Your task to perform on an android device: Empty the shopping cart on walmart.com. Search for "jbl charge 4" on walmart.com, select the first entry, and add it to the cart. Image 0: 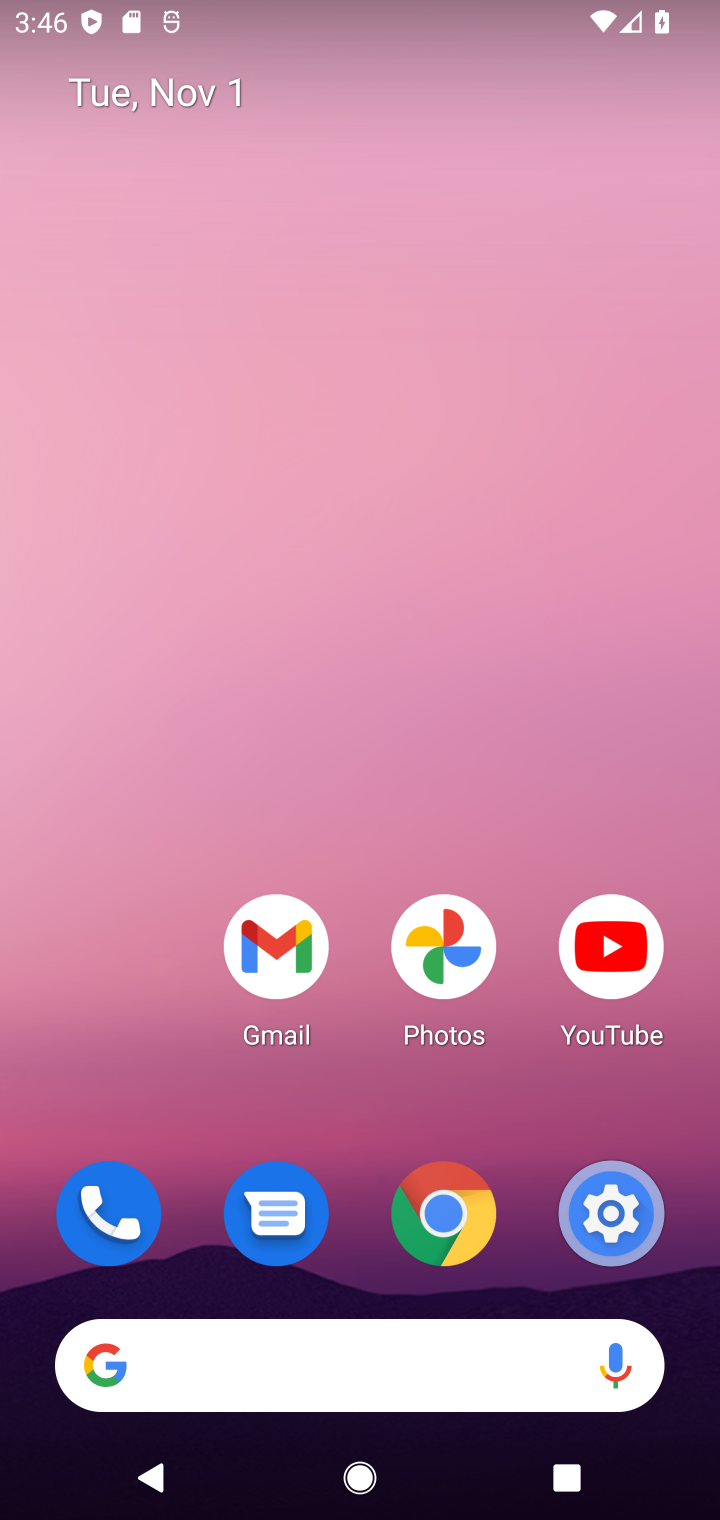
Step 0: click (406, 1351)
Your task to perform on an android device: Empty the shopping cart on walmart.com. Search for "jbl charge 4" on walmart.com, select the first entry, and add it to the cart. Image 1: 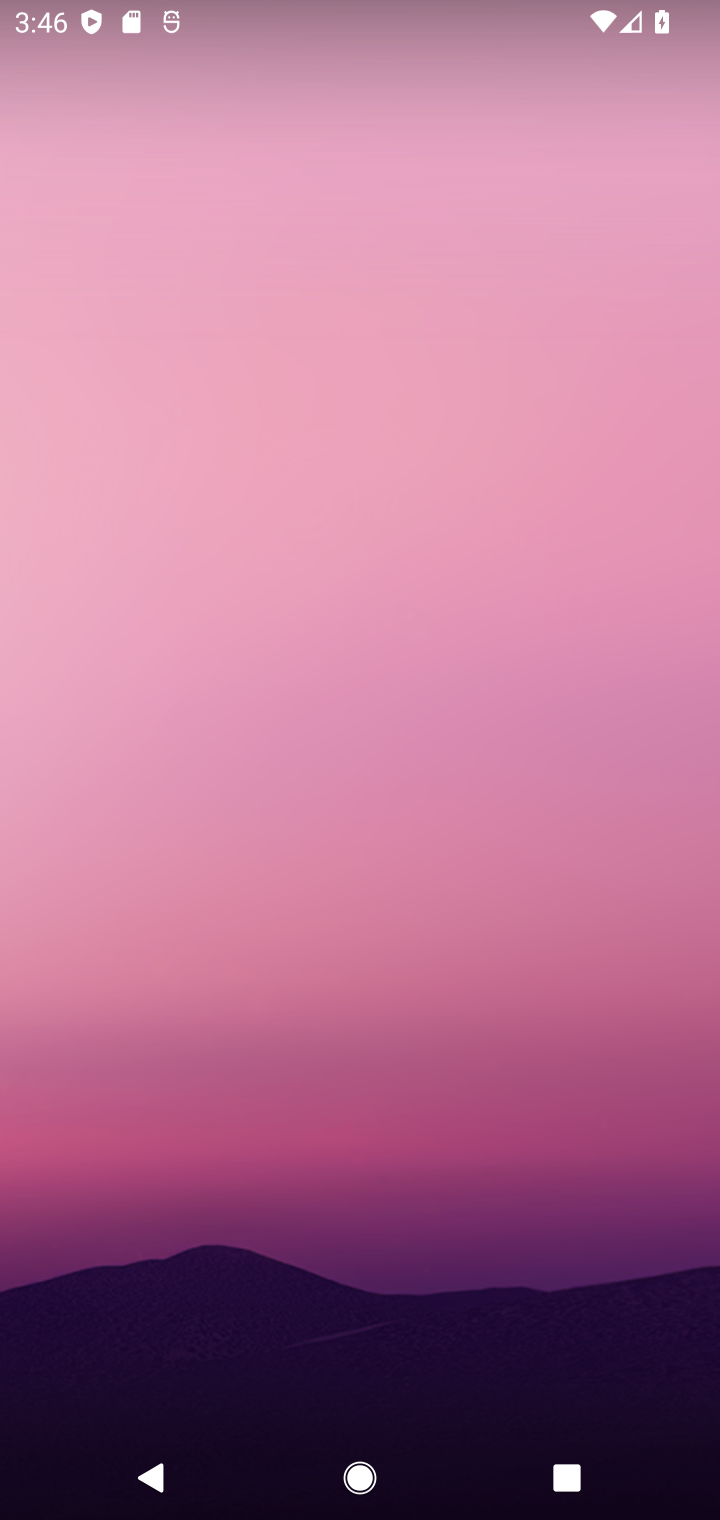
Step 1: click (406, 1354)
Your task to perform on an android device: Empty the shopping cart on walmart.com. Search for "jbl charge 4" on walmart.com, select the first entry, and add it to the cart. Image 2: 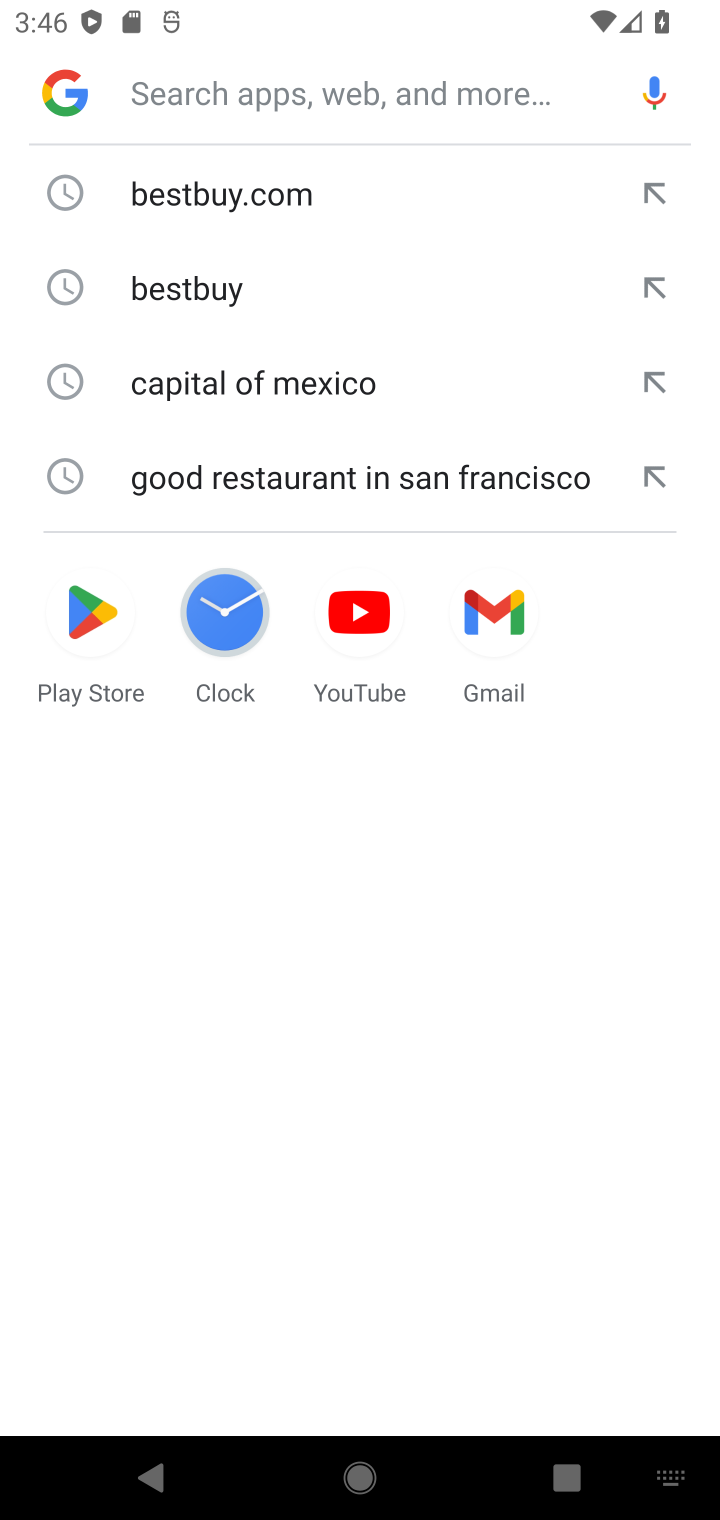
Step 2: type "walmart.com"
Your task to perform on an android device: Empty the shopping cart on walmart.com. Search for "jbl charge 4" on walmart.com, select the first entry, and add it to the cart. Image 3: 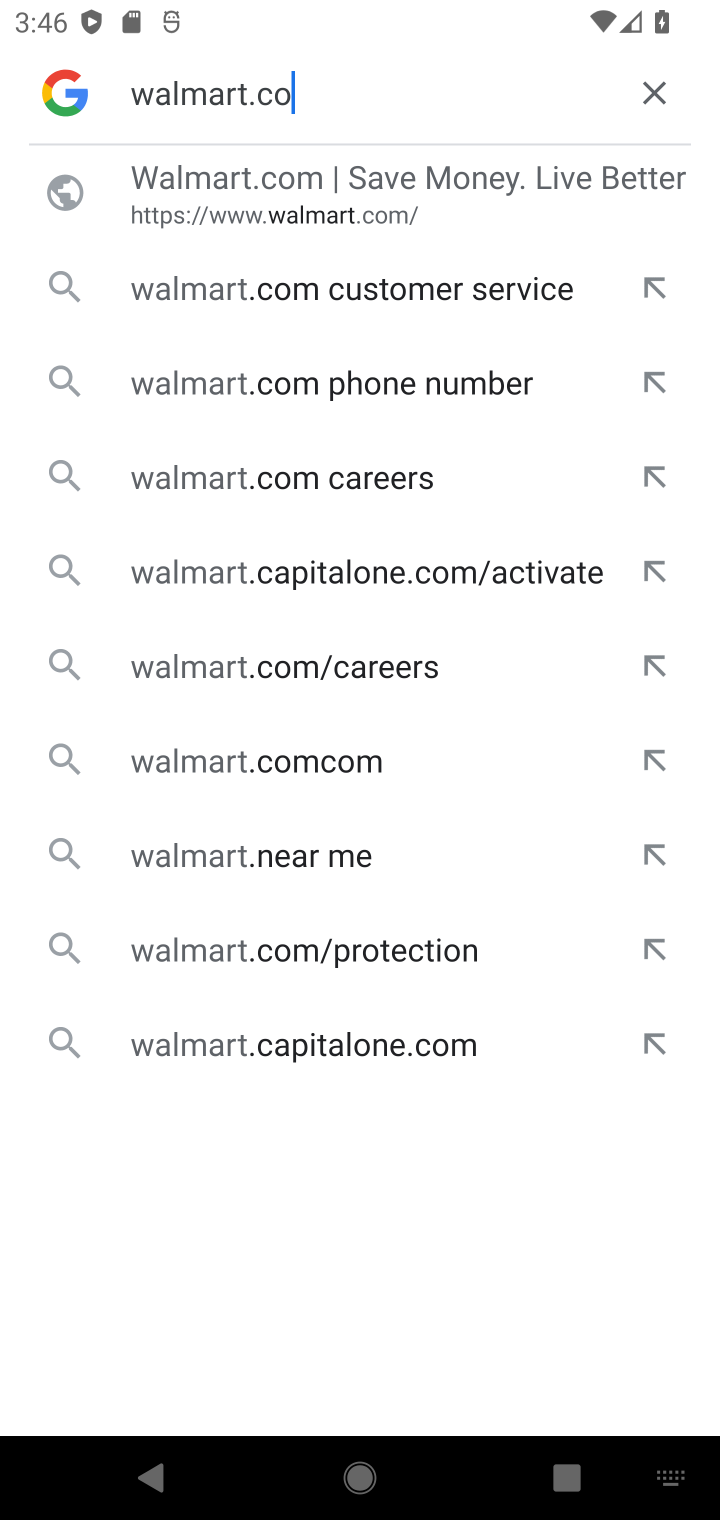
Step 3: type ""
Your task to perform on an android device: Empty the shopping cart on walmart.com. Search for "jbl charge 4" on walmart.com, select the first entry, and add it to the cart. Image 4: 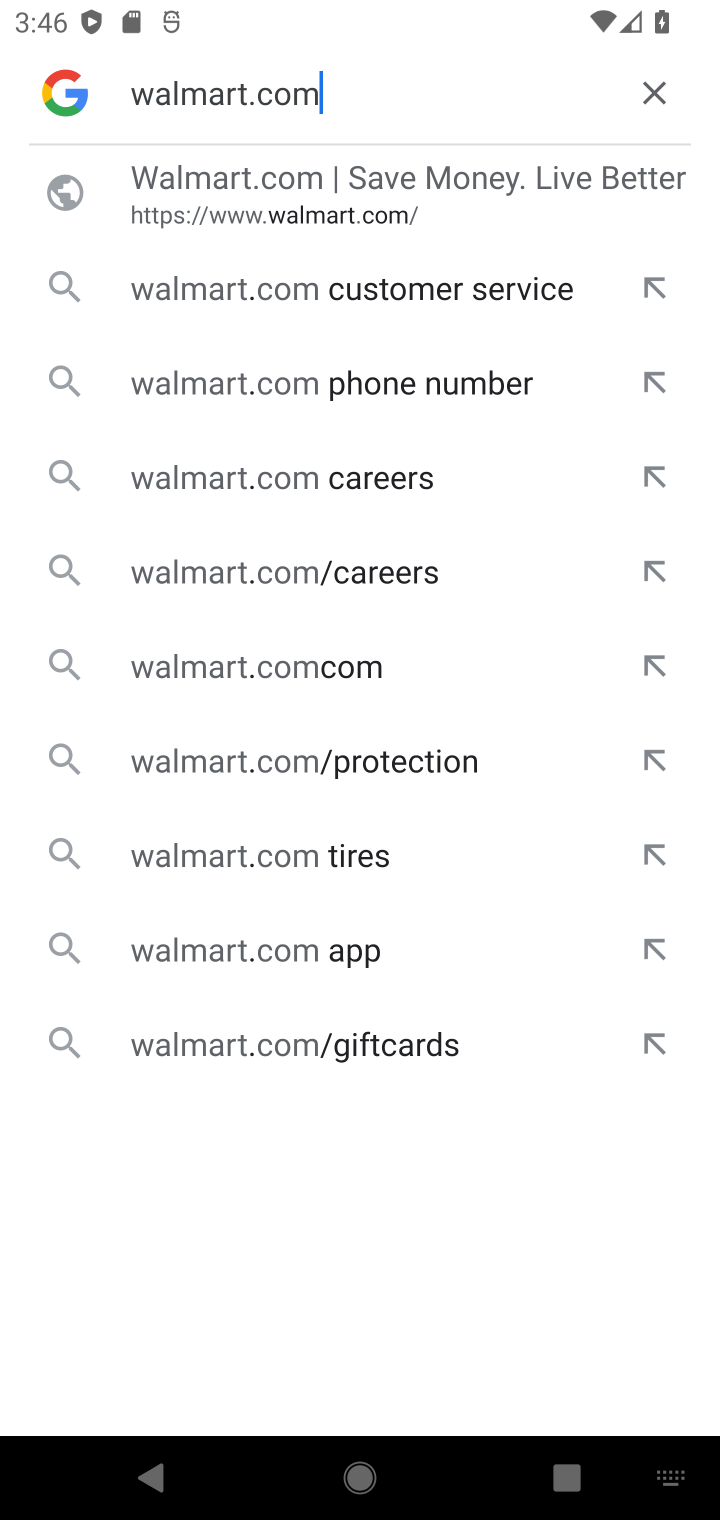
Step 4: type ""
Your task to perform on an android device: Empty the shopping cart on walmart.com. Search for "jbl charge 4" on walmart.com, select the first entry, and add it to the cart. Image 5: 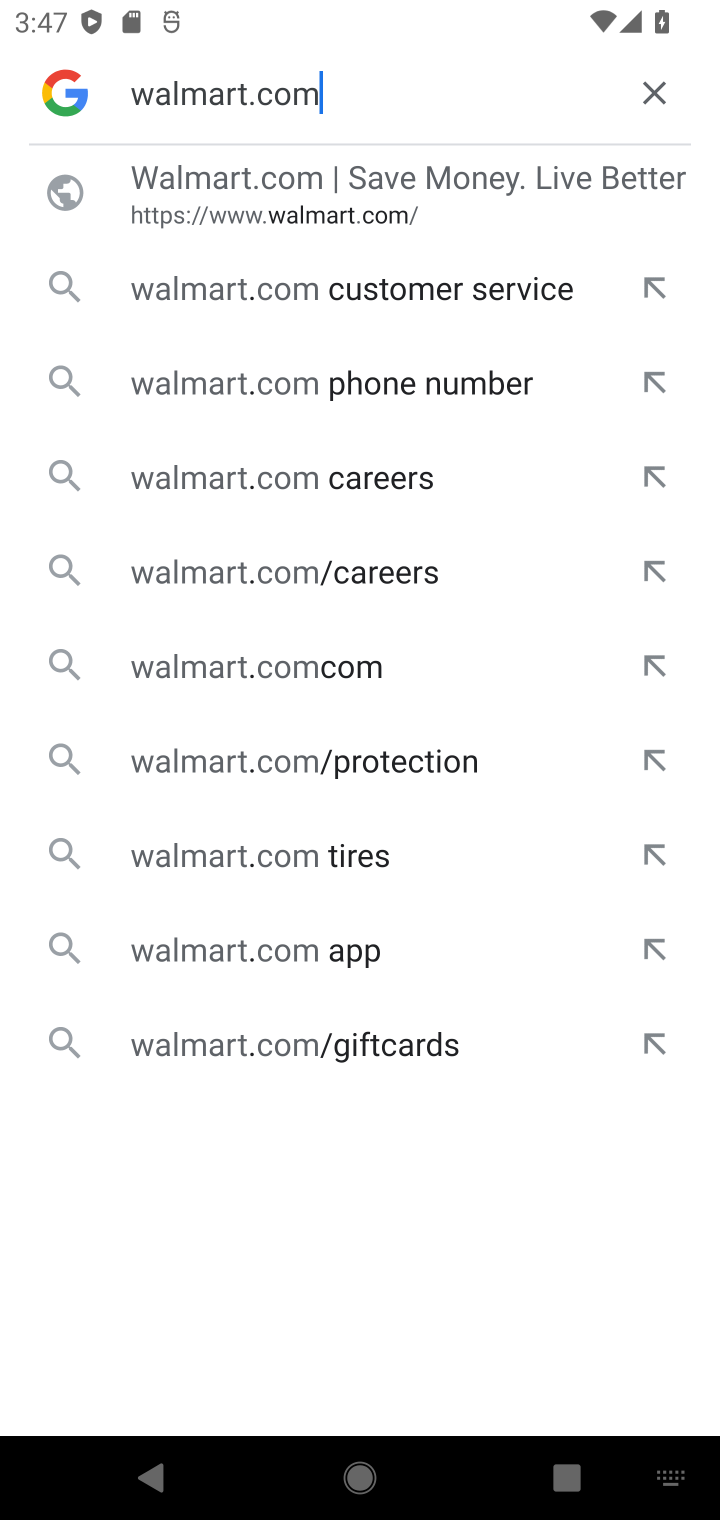
Step 5: press enter
Your task to perform on an android device: Empty the shopping cart on walmart.com. Search for "jbl charge 4" on walmart.com, select the first entry, and add it to the cart. Image 6: 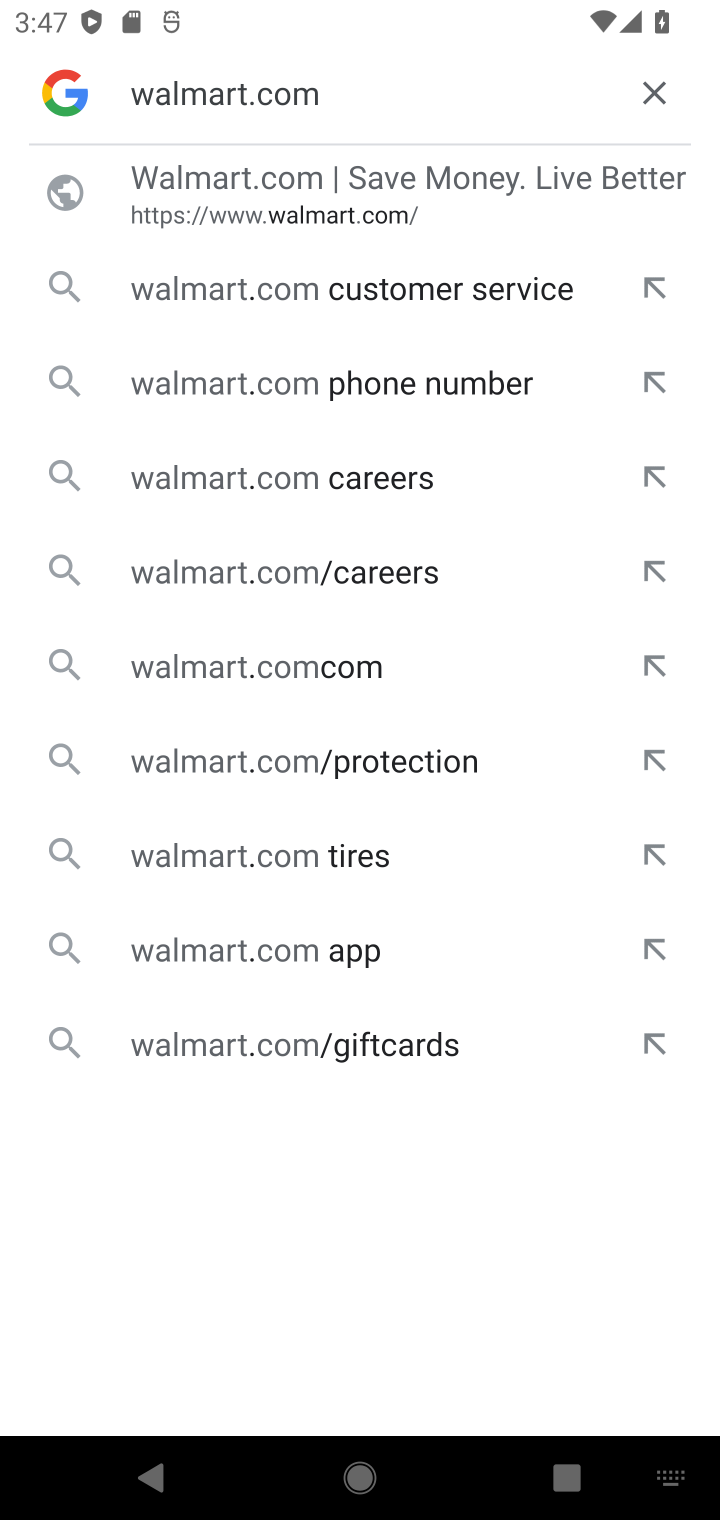
Step 6: press enter
Your task to perform on an android device: Empty the shopping cart on walmart.com. Search for "jbl charge 4" on walmart.com, select the first entry, and add it to the cart. Image 7: 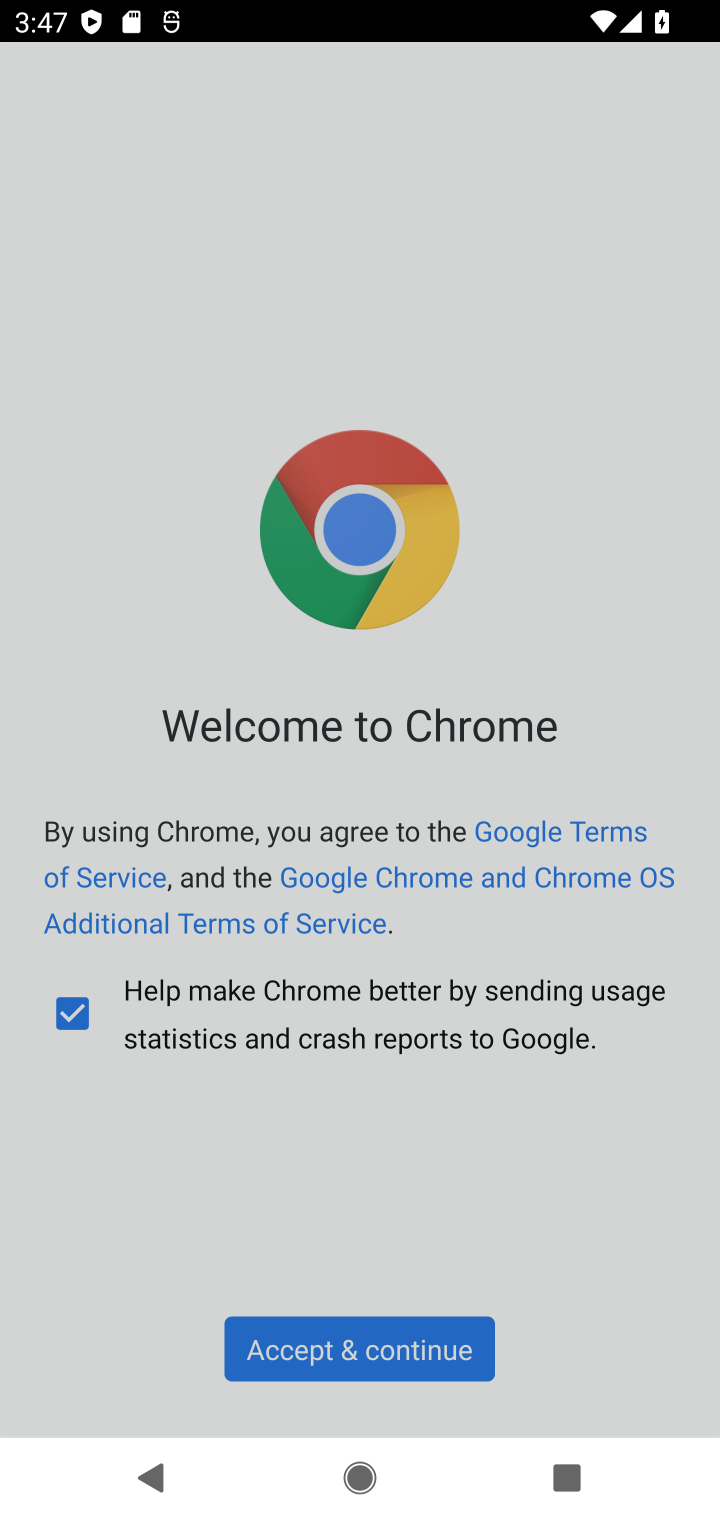
Step 7: click (440, 1362)
Your task to perform on an android device: Empty the shopping cart on walmart.com. Search for "jbl charge 4" on walmart.com, select the first entry, and add it to the cart. Image 8: 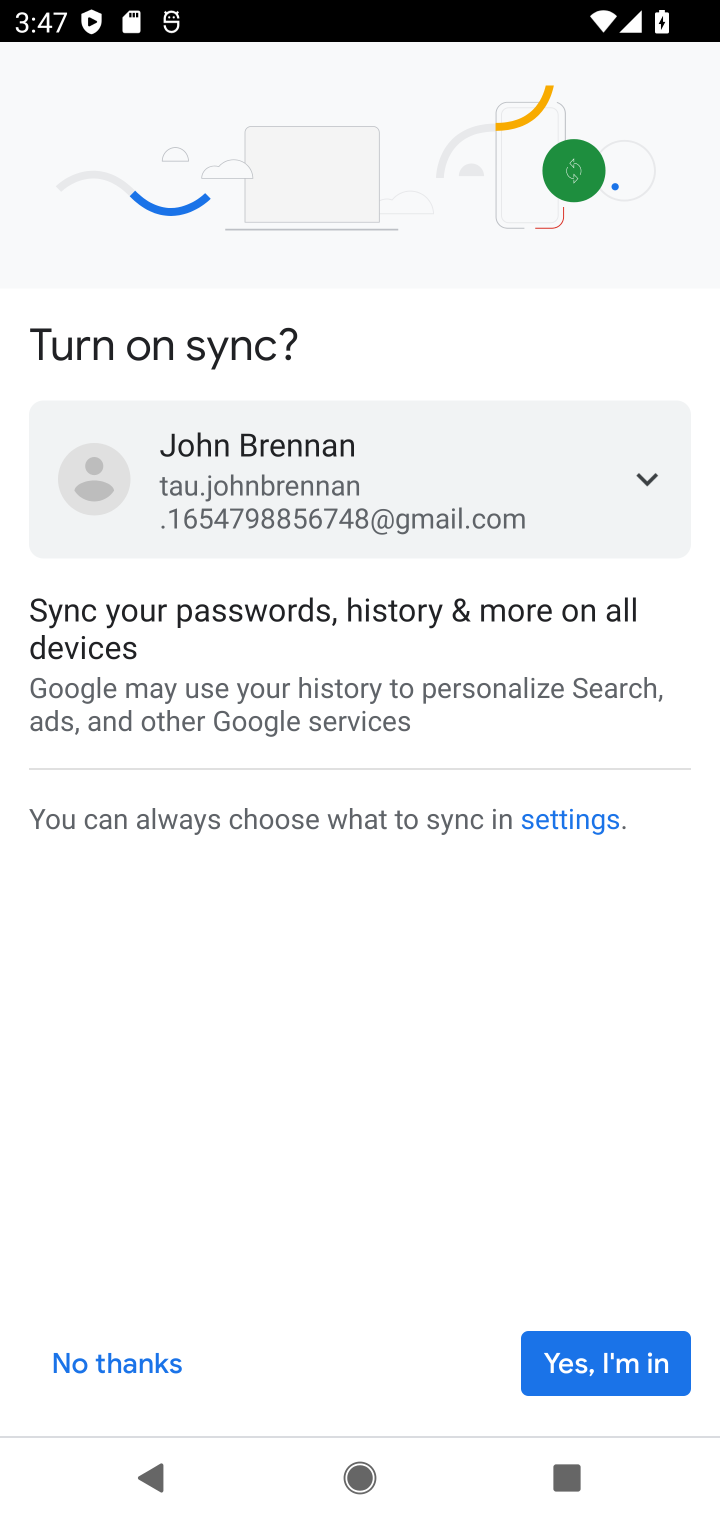
Step 8: click (584, 1370)
Your task to perform on an android device: Empty the shopping cart on walmart.com. Search for "jbl charge 4" on walmart.com, select the first entry, and add it to the cart. Image 9: 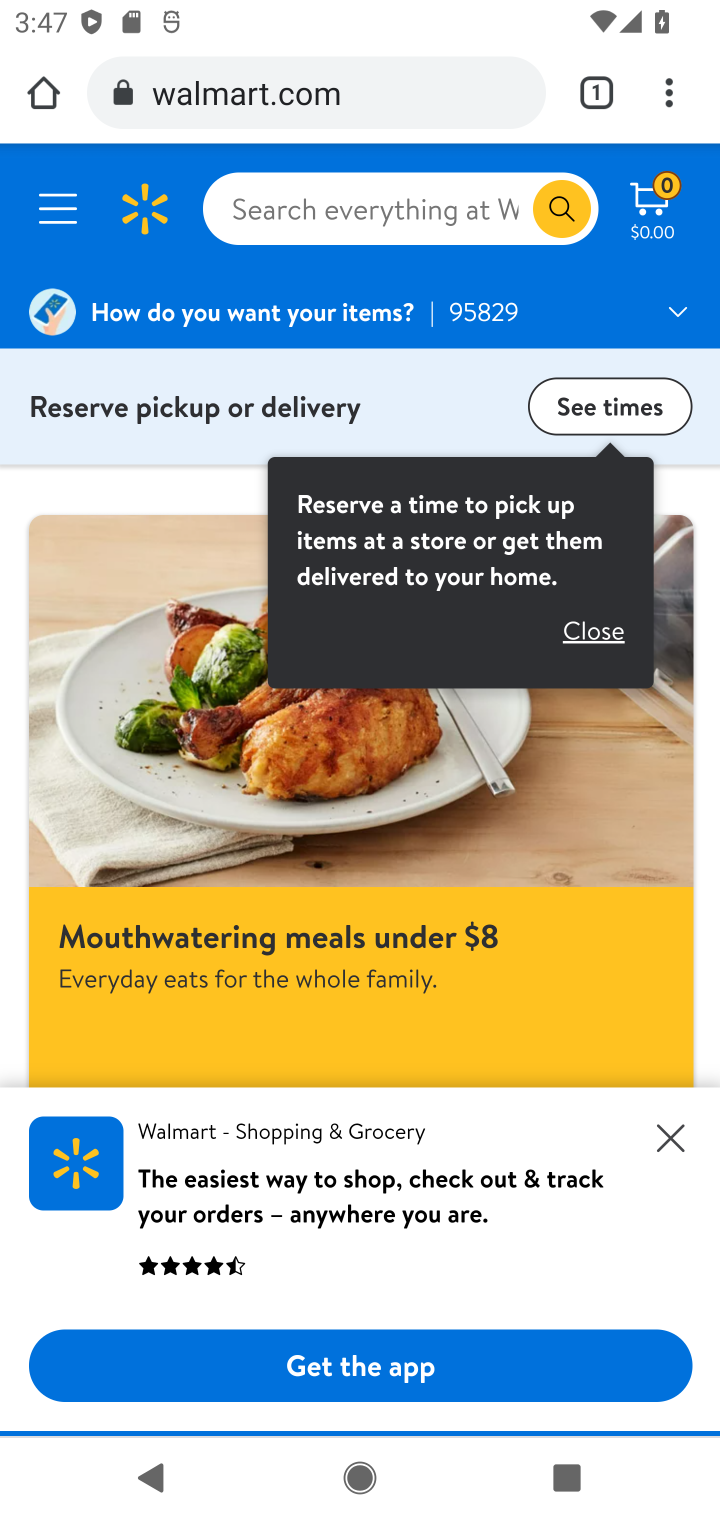
Step 9: click (597, 632)
Your task to perform on an android device: Empty the shopping cart on walmart.com. Search for "jbl charge 4" on walmart.com, select the first entry, and add it to the cart. Image 10: 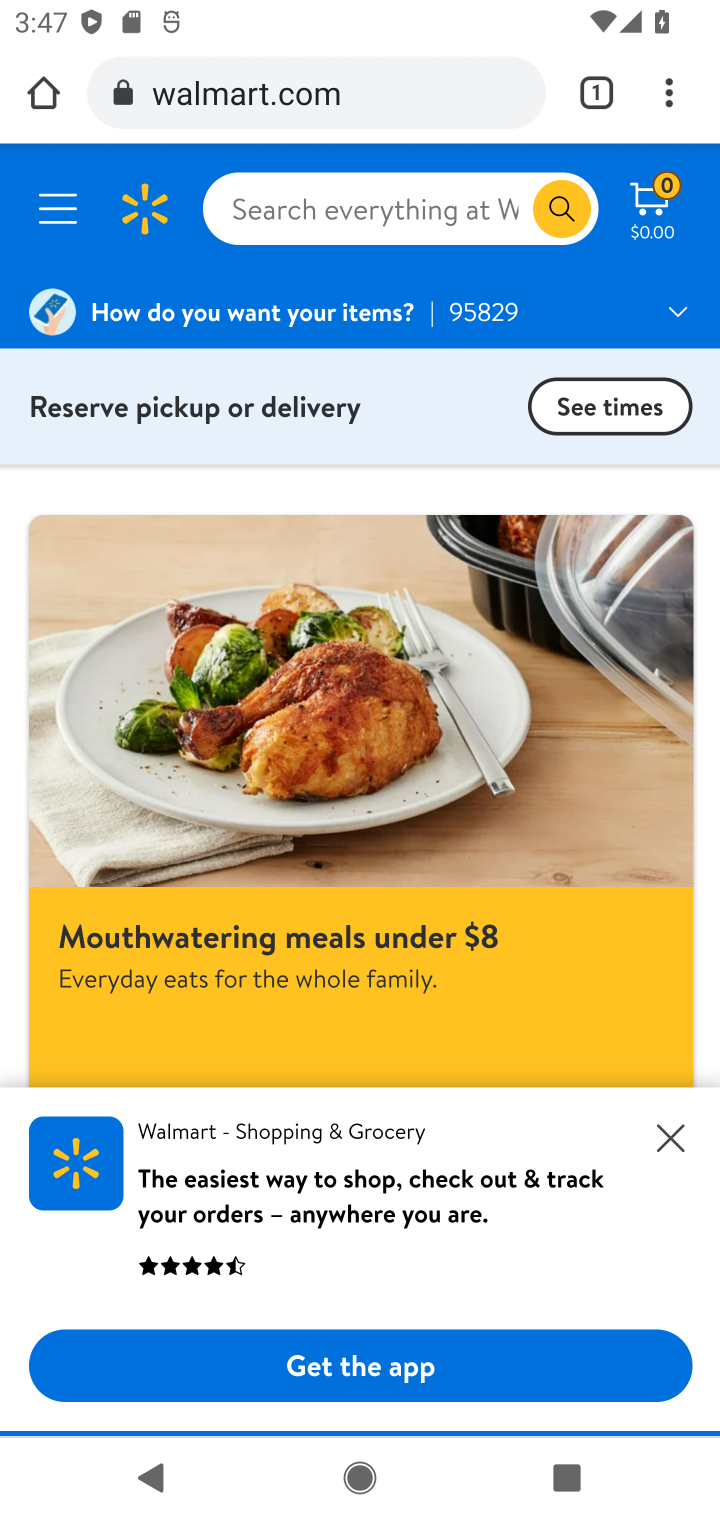
Step 10: click (669, 1144)
Your task to perform on an android device: Empty the shopping cart on walmart.com. Search for "jbl charge 4" on walmart.com, select the first entry, and add it to the cart. Image 11: 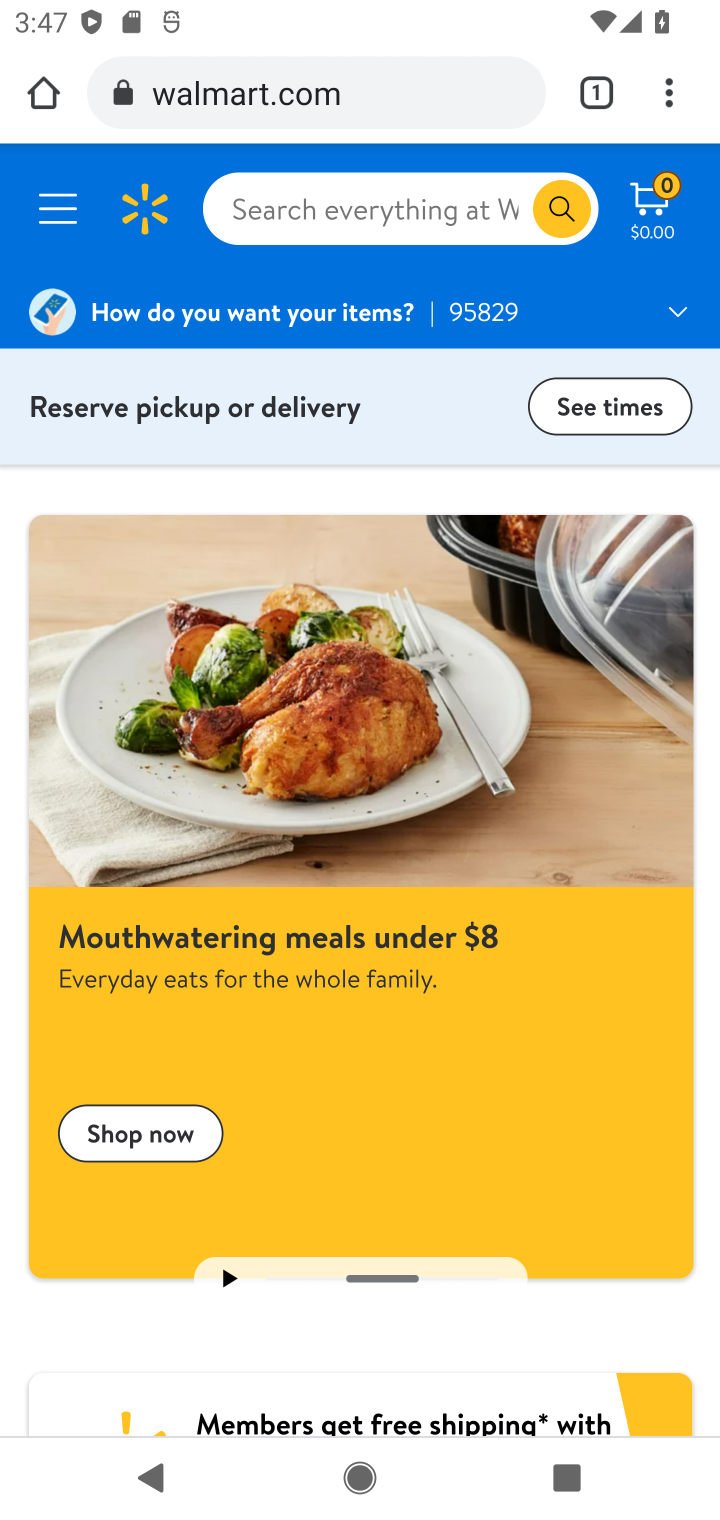
Step 11: click (344, 221)
Your task to perform on an android device: Empty the shopping cart on walmart.com. Search for "jbl charge 4" on walmart.com, select the first entry, and add it to the cart. Image 12: 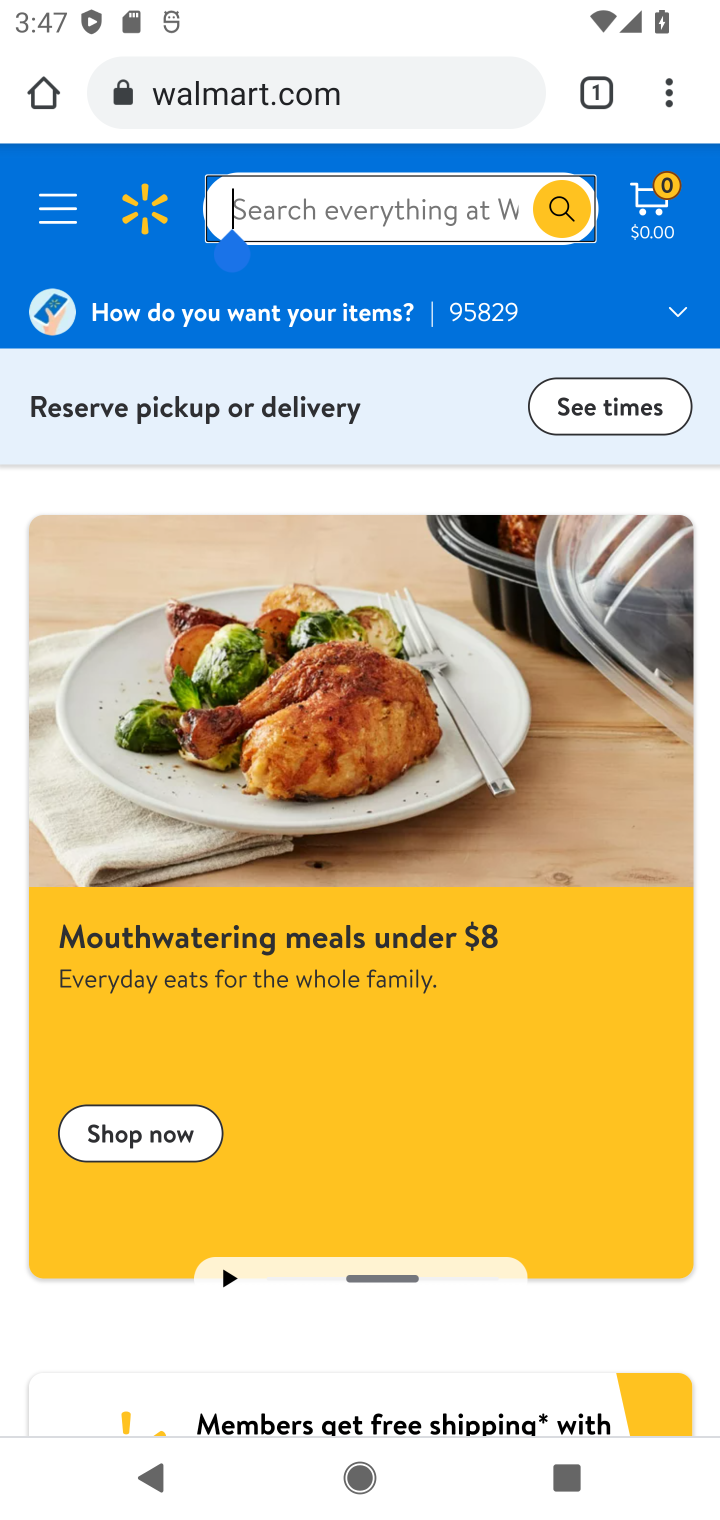
Step 12: type "jbl charge 4"
Your task to perform on an android device: Empty the shopping cart on walmart.com. Search for "jbl charge 4" on walmart.com, select the first entry, and add it to the cart. Image 13: 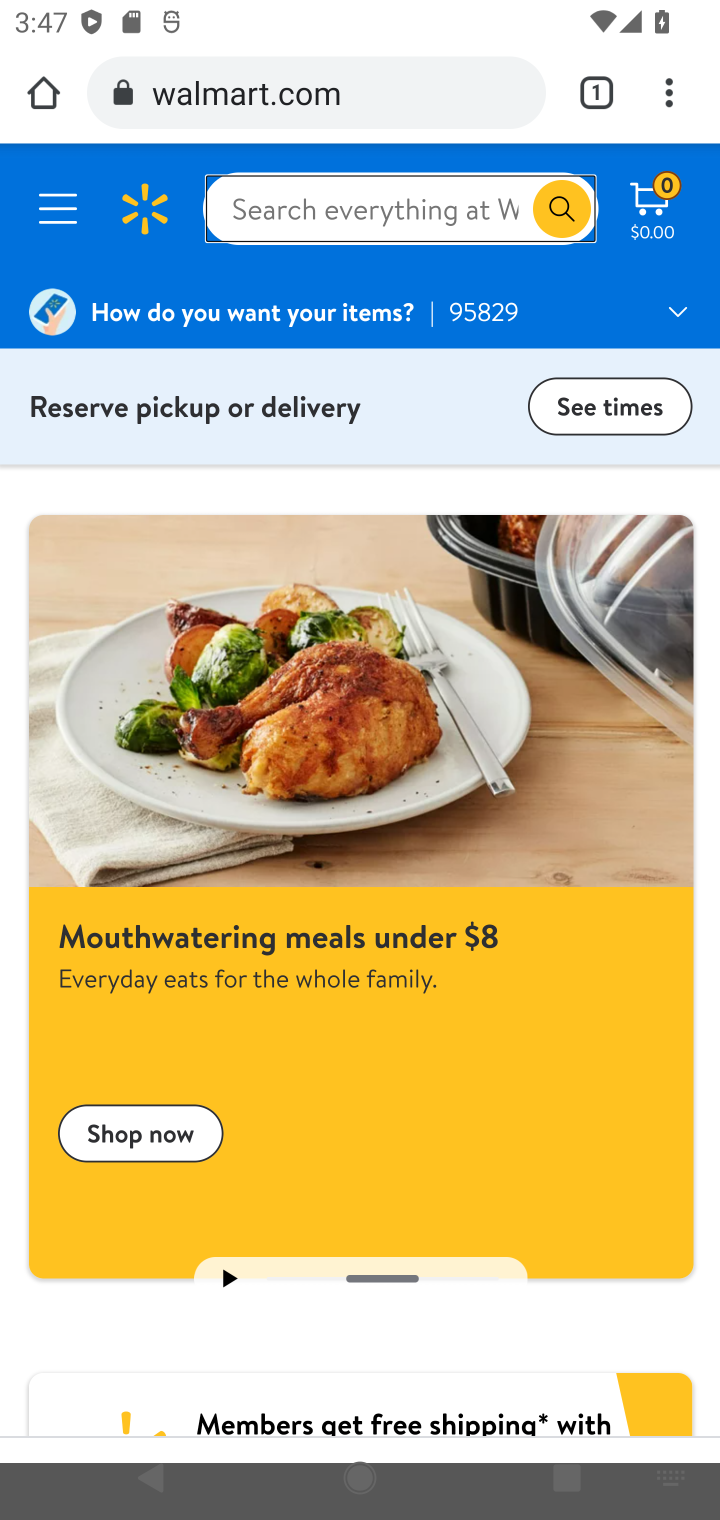
Step 13: type ""
Your task to perform on an android device: Empty the shopping cart on walmart.com. Search for "jbl charge 4" on walmart.com, select the first entry, and add it to the cart. Image 14: 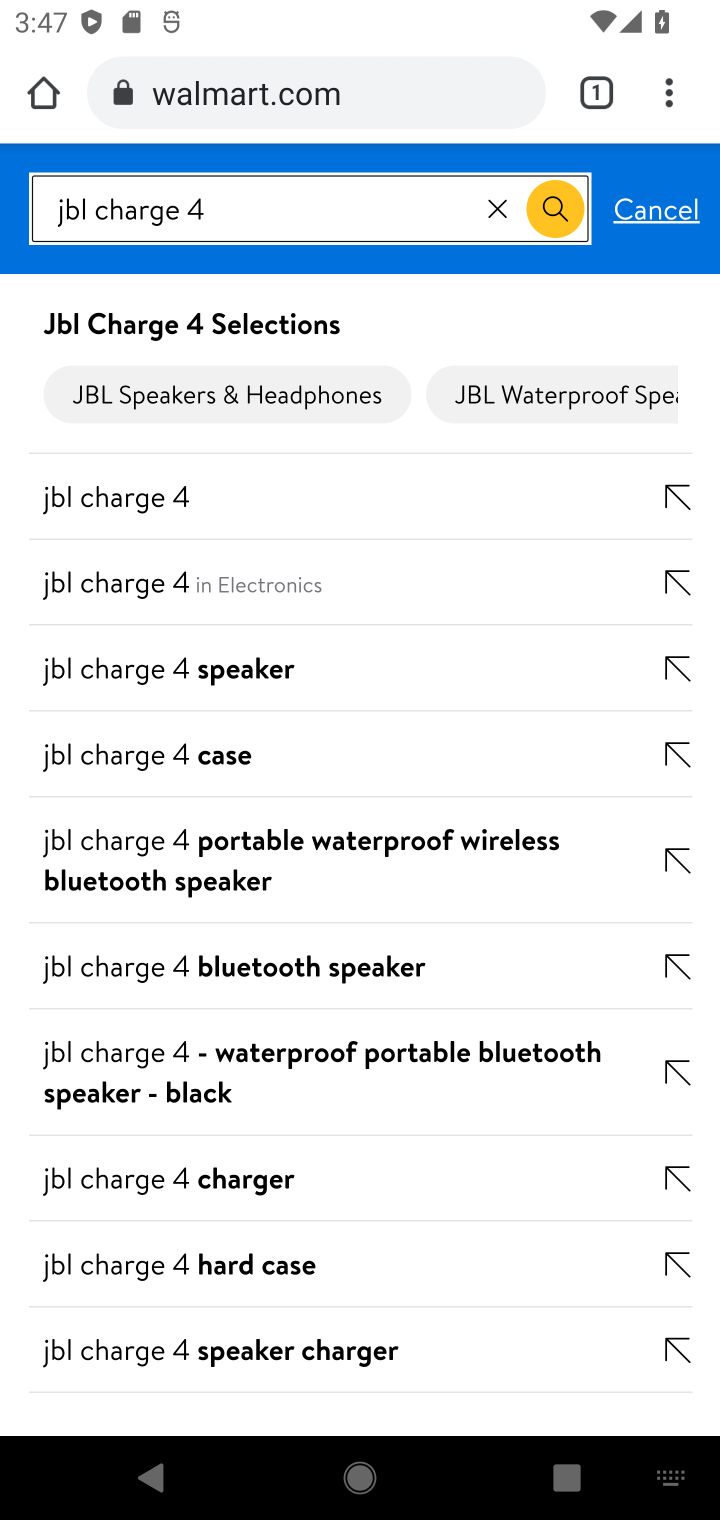
Step 14: press enter
Your task to perform on an android device: Empty the shopping cart on walmart.com. Search for "jbl charge 4" on walmart.com, select the first entry, and add it to the cart. Image 15: 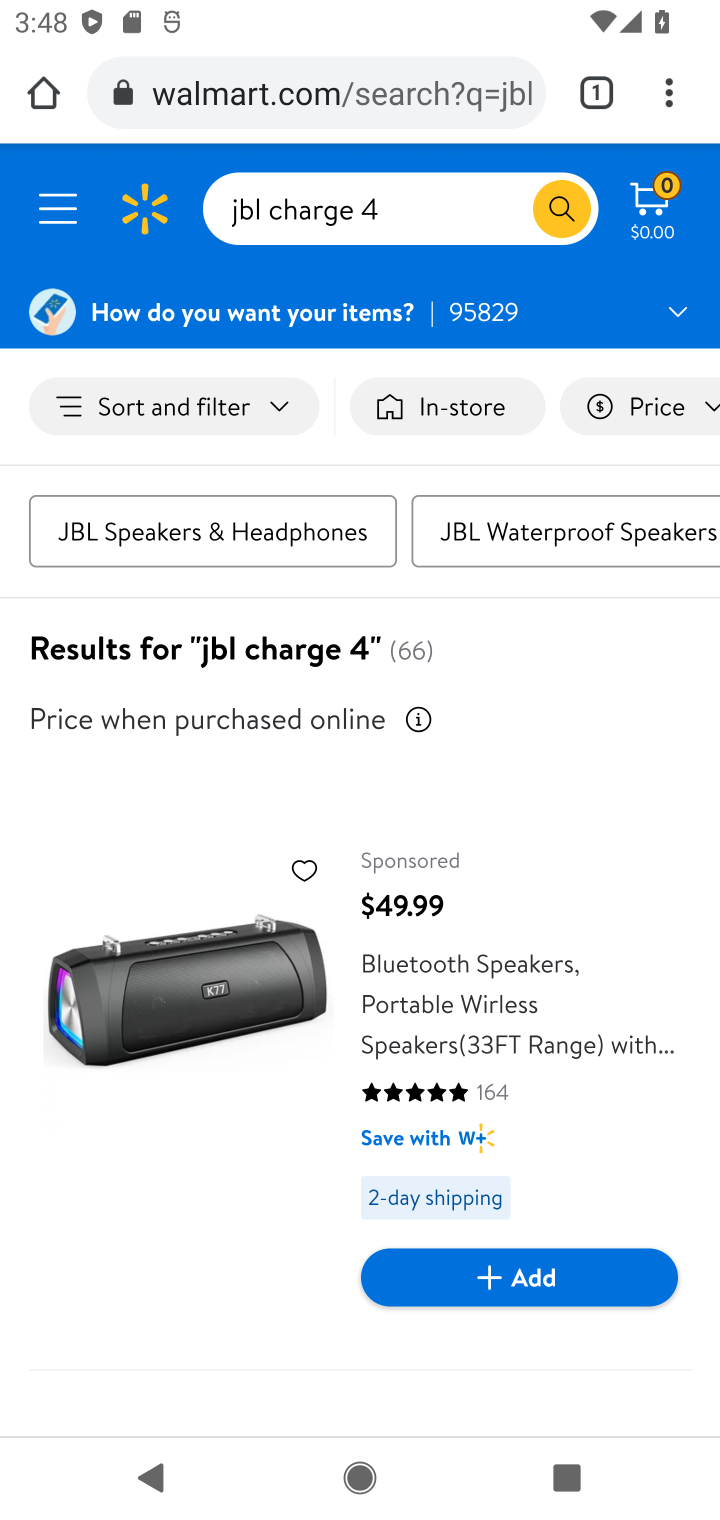
Step 15: click (566, 1288)
Your task to perform on an android device: Empty the shopping cart on walmart.com. Search for "jbl charge 4" on walmart.com, select the first entry, and add it to the cart. Image 16: 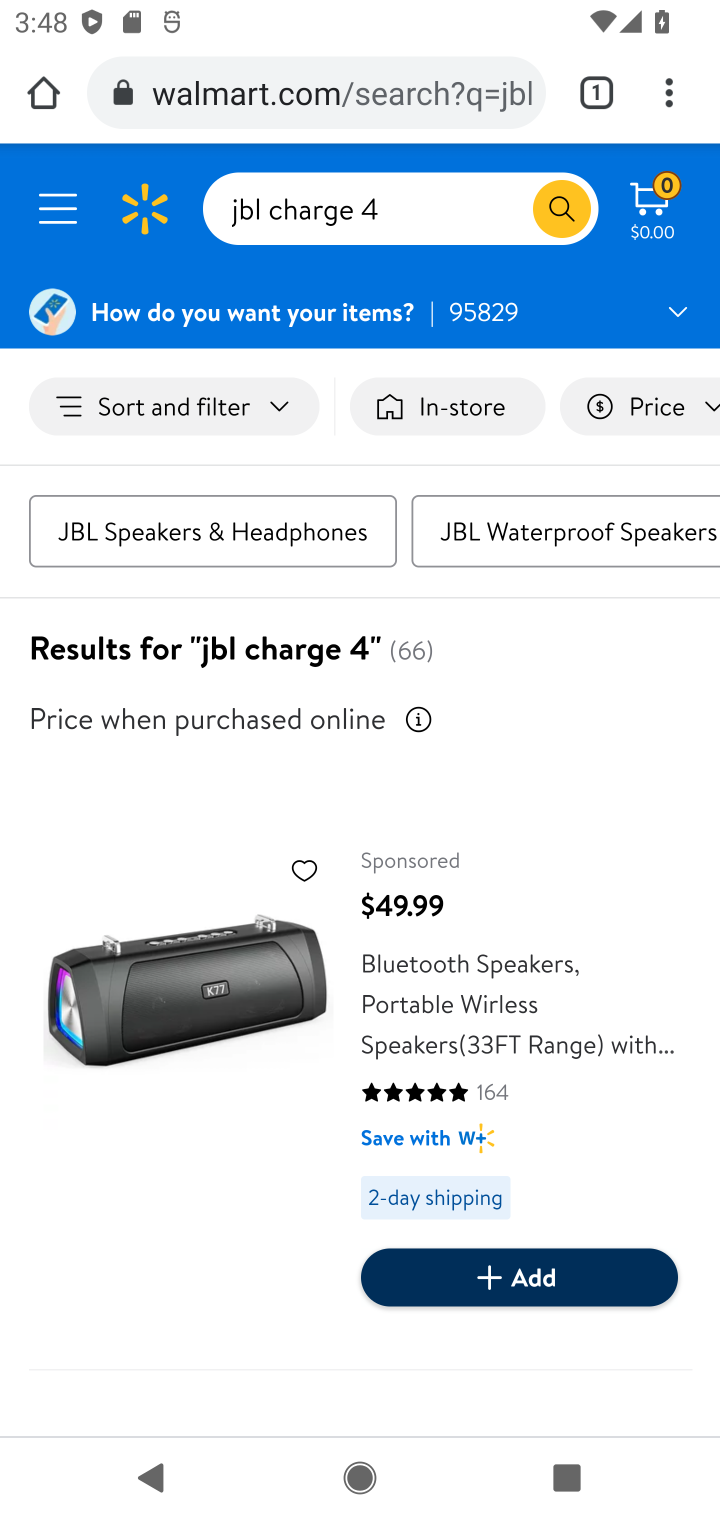
Step 16: click (388, 1068)
Your task to perform on an android device: Empty the shopping cart on walmart.com. Search for "jbl charge 4" on walmart.com, select the first entry, and add it to the cart. Image 17: 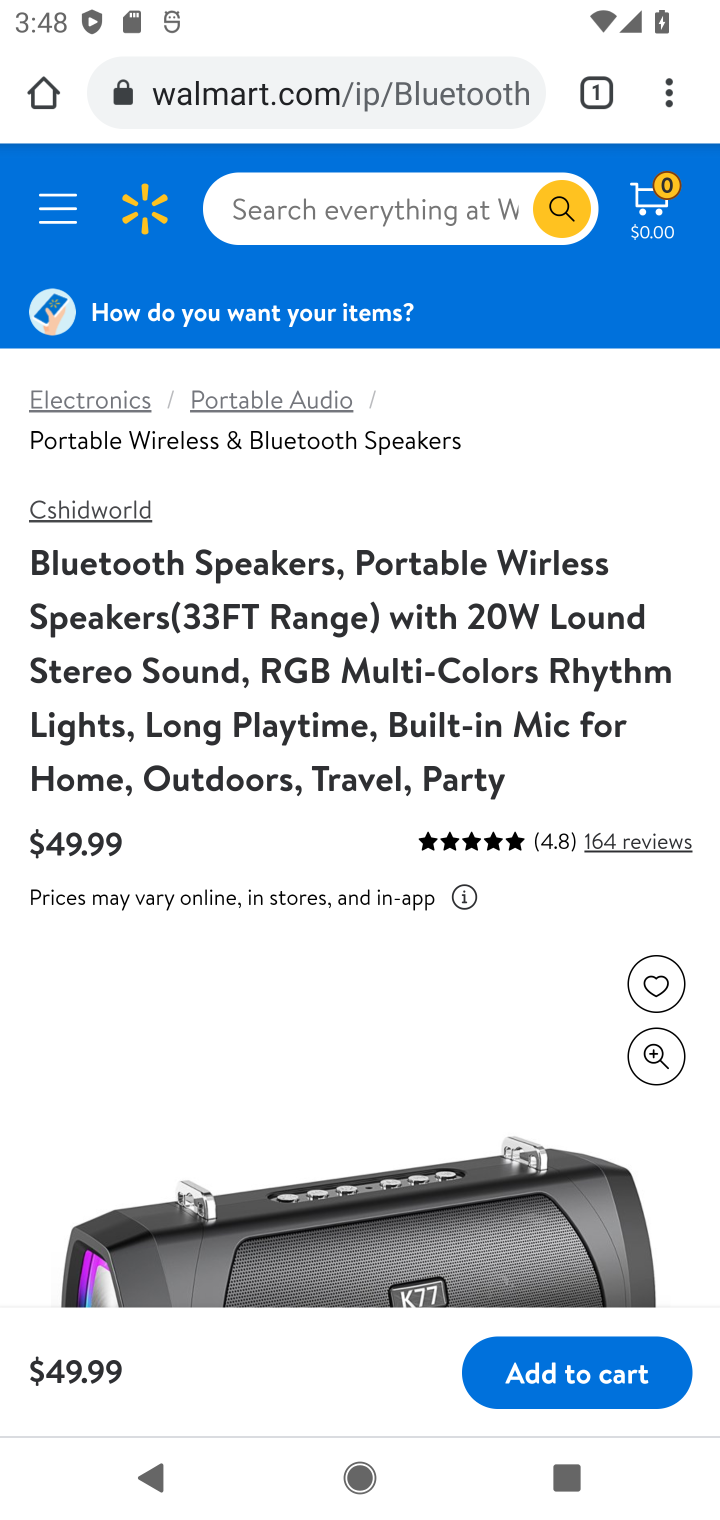
Step 17: click (602, 1376)
Your task to perform on an android device: Empty the shopping cart on walmart.com. Search for "jbl charge 4" on walmart.com, select the first entry, and add it to the cart. Image 18: 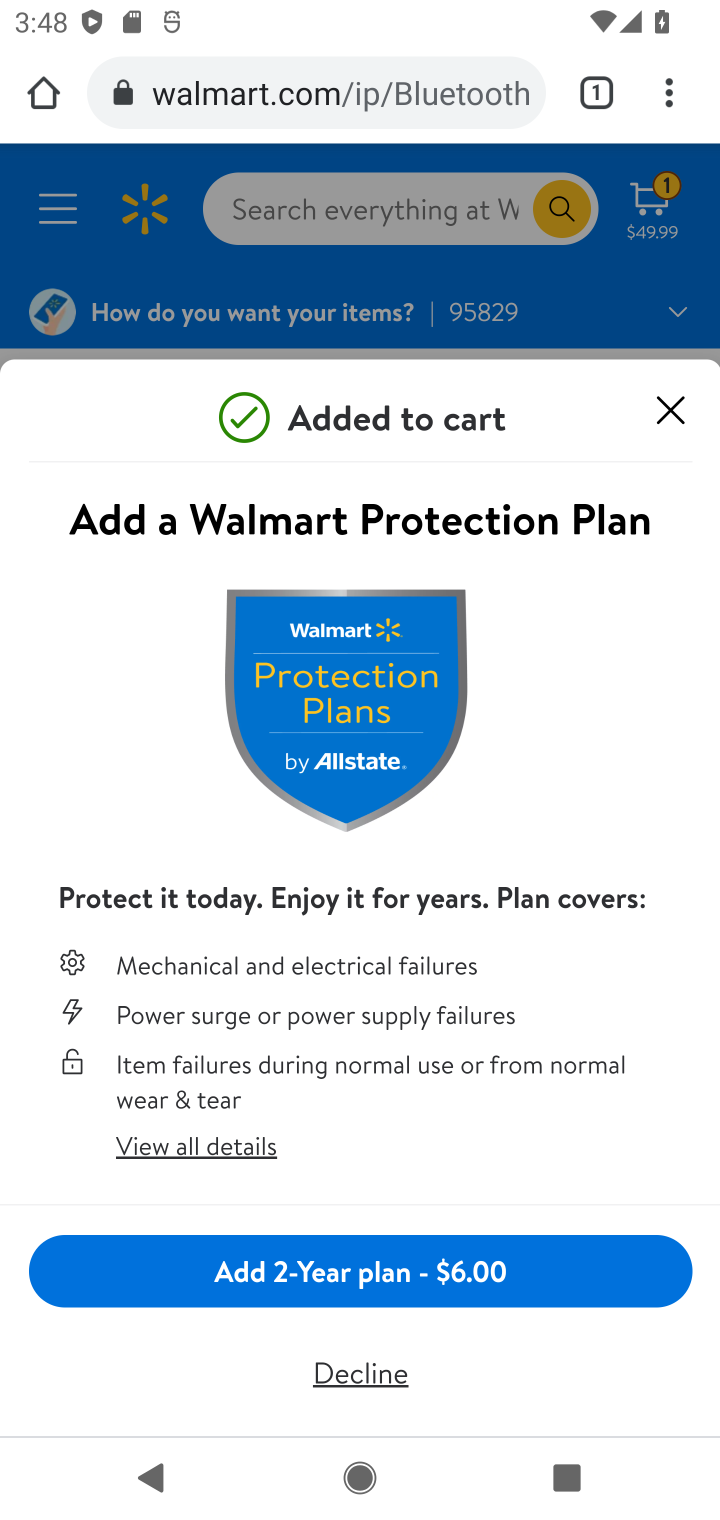
Step 18: task complete